Your task to perform on an android device: add a contact in the contacts app Image 0: 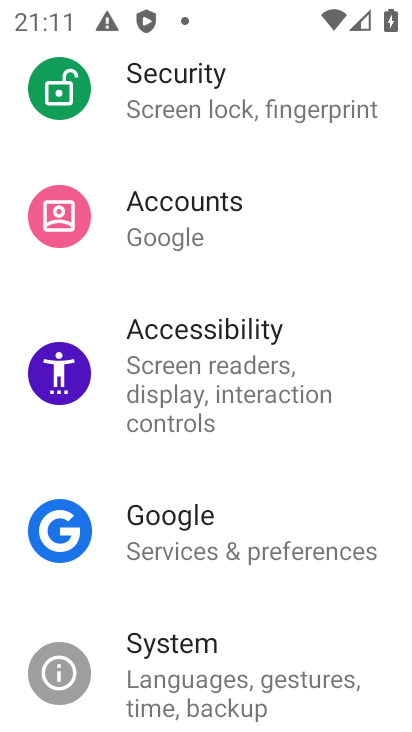
Step 0: drag from (233, 540) to (346, 731)
Your task to perform on an android device: add a contact in the contacts app Image 1: 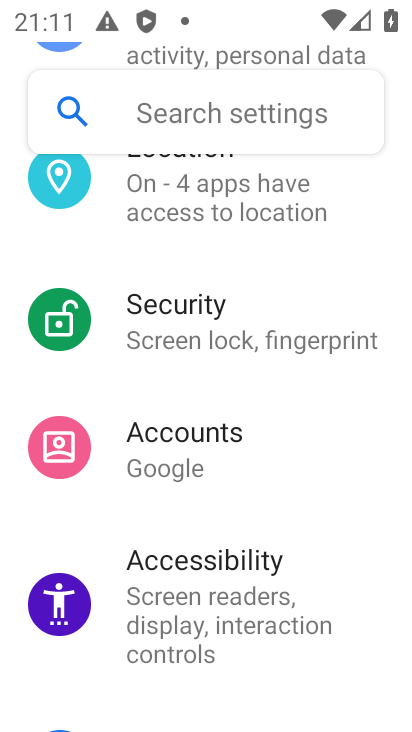
Step 1: press home button
Your task to perform on an android device: add a contact in the contacts app Image 2: 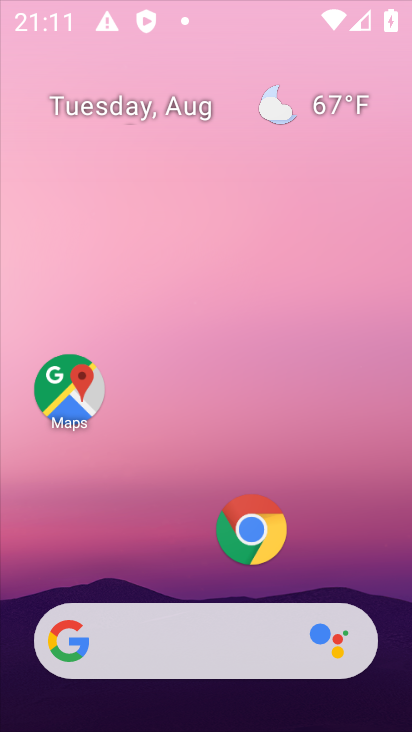
Step 2: drag from (219, 657) to (301, 223)
Your task to perform on an android device: add a contact in the contacts app Image 3: 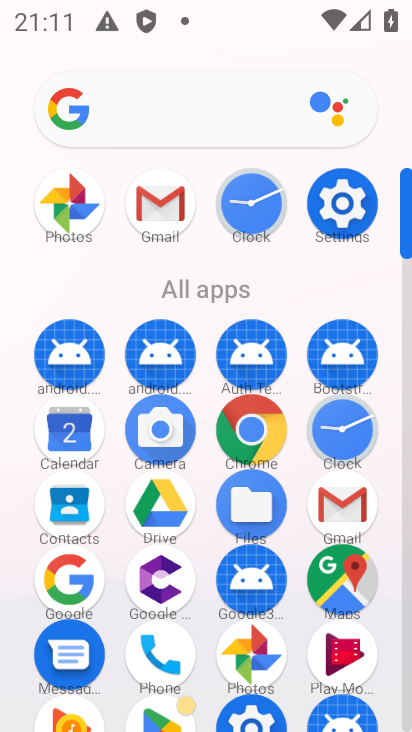
Step 3: click (62, 513)
Your task to perform on an android device: add a contact in the contacts app Image 4: 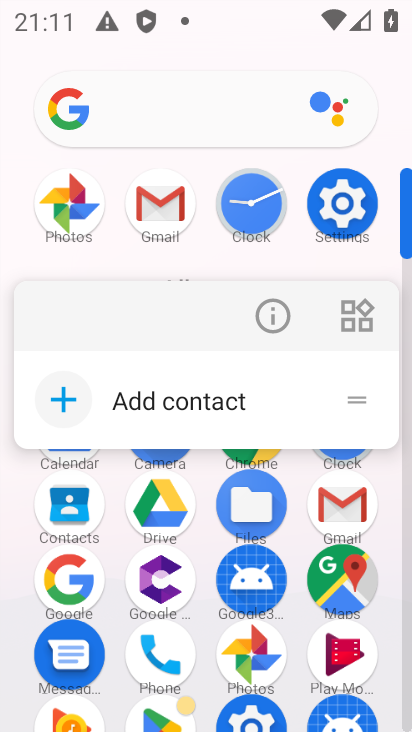
Step 4: click (274, 304)
Your task to perform on an android device: add a contact in the contacts app Image 5: 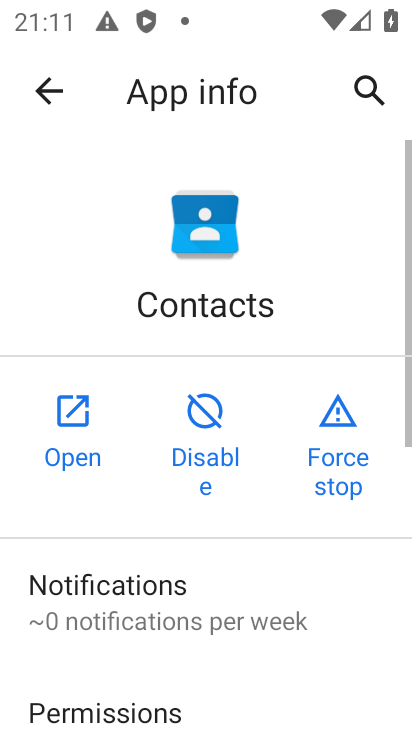
Step 5: click (65, 420)
Your task to perform on an android device: add a contact in the contacts app Image 6: 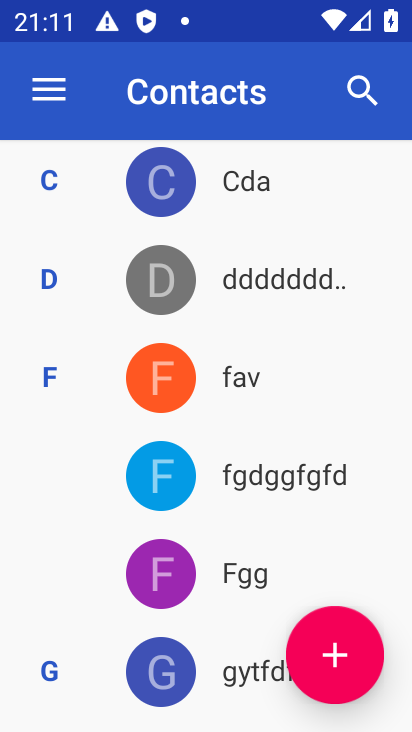
Step 6: click (343, 663)
Your task to perform on an android device: add a contact in the contacts app Image 7: 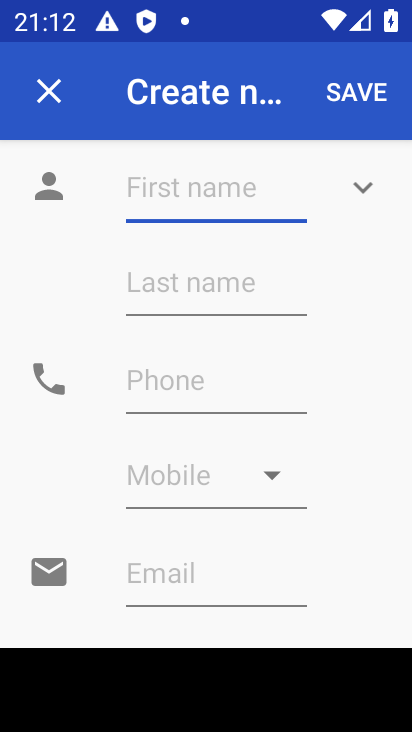
Step 7: type "jjnj"
Your task to perform on an android device: add a contact in the contacts app Image 8: 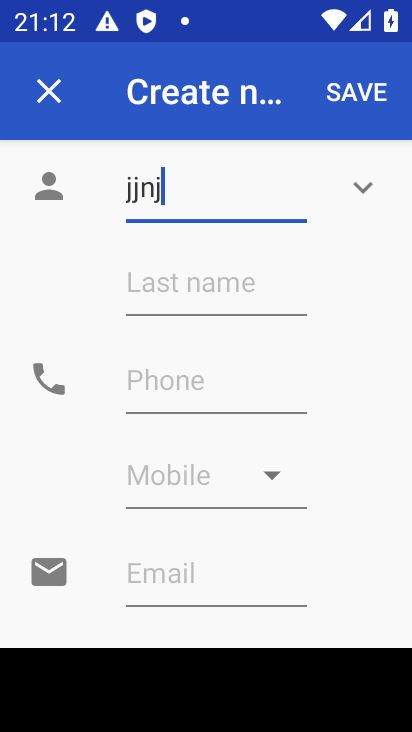
Step 8: click (371, 99)
Your task to perform on an android device: add a contact in the contacts app Image 9: 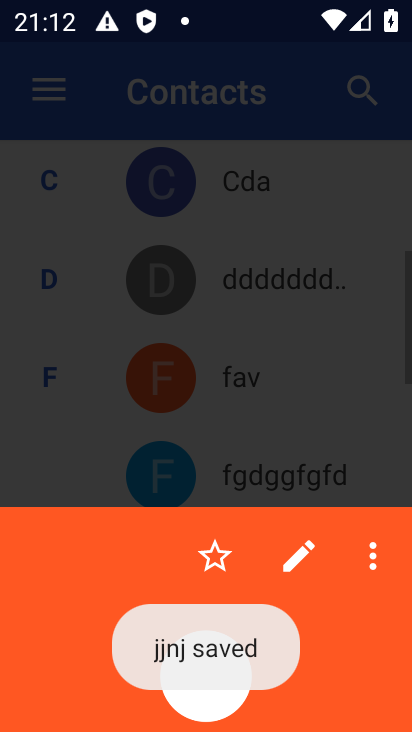
Step 9: task complete